Your task to perform on an android device: turn on location history Image 0: 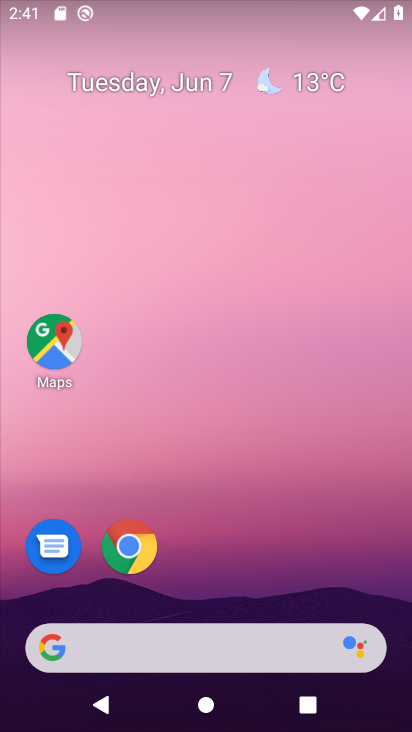
Step 0: drag from (316, 574) to (327, 137)
Your task to perform on an android device: turn on location history Image 1: 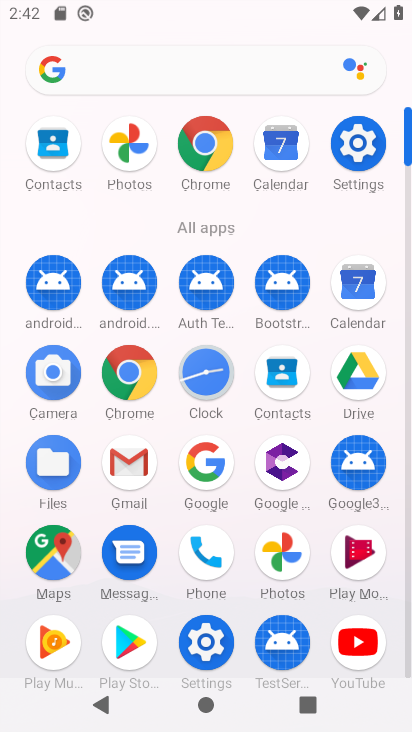
Step 1: click (354, 168)
Your task to perform on an android device: turn on location history Image 2: 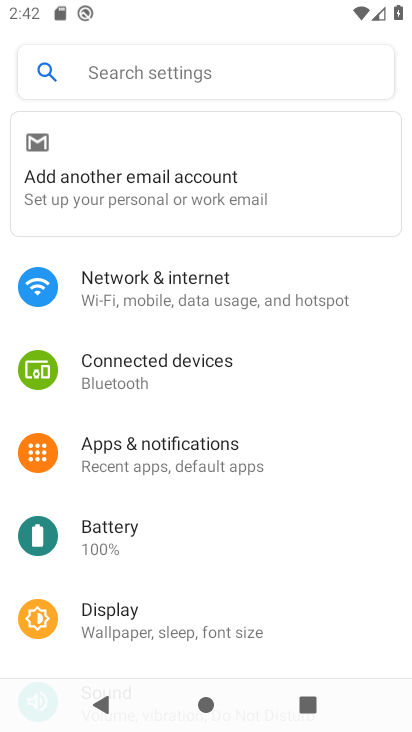
Step 2: drag from (316, 520) to (345, 312)
Your task to perform on an android device: turn on location history Image 3: 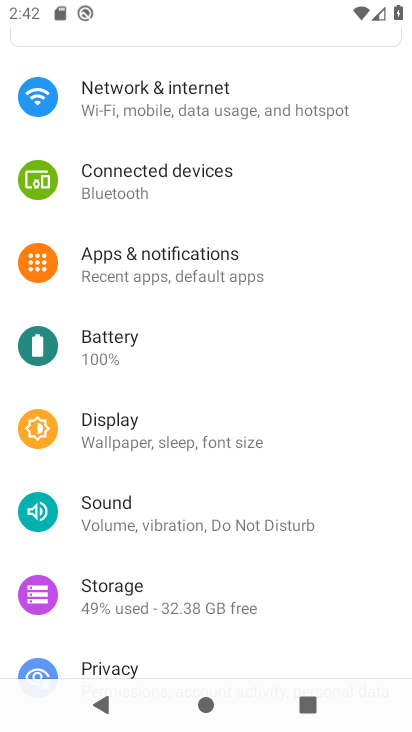
Step 3: drag from (319, 532) to (344, 352)
Your task to perform on an android device: turn on location history Image 4: 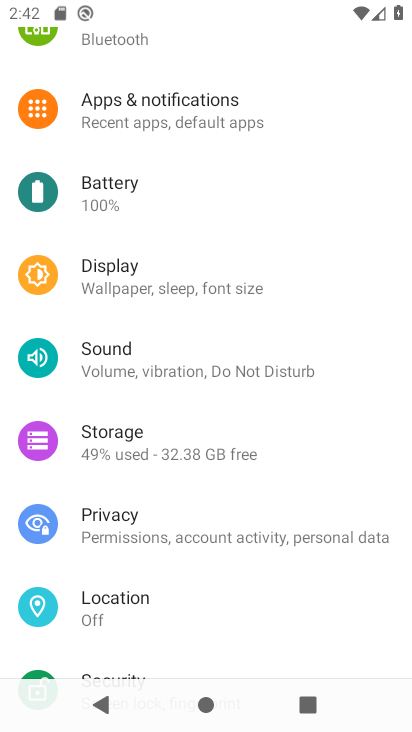
Step 4: drag from (319, 590) to (325, 357)
Your task to perform on an android device: turn on location history Image 5: 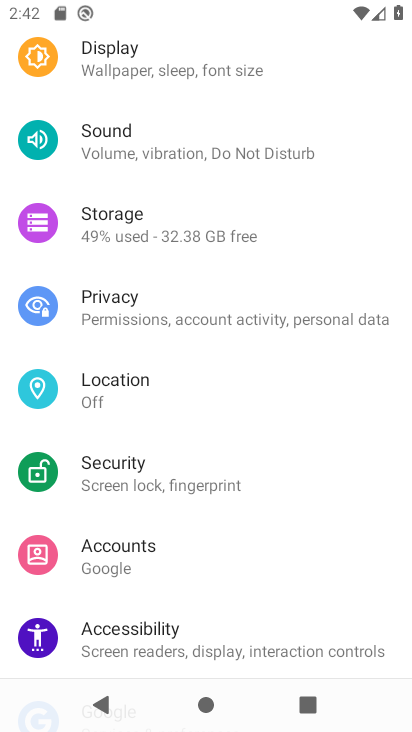
Step 5: drag from (293, 600) to (295, 380)
Your task to perform on an android device: turn on location history Image 6: 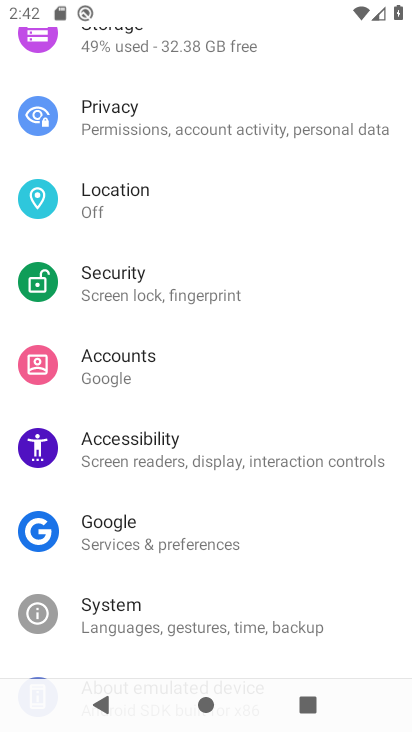
Step 6: drag from (277, 573) to (281, 425)
Your task to perform on an android device: turn on location history Image 7: 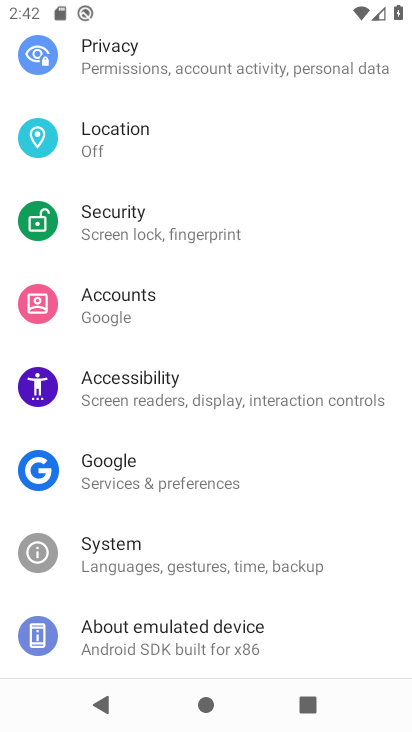
Step 7: drag from (284, 577) to (287, 385)
Your task to perform on an android device: turn on location history Image 8: 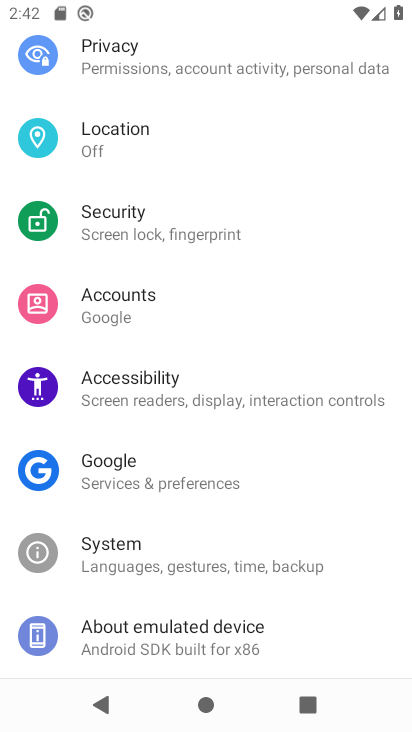
Step 8: drag from (240, 230) to (246, 381)
Your task to perform on an android device: turn on location history Image 9: 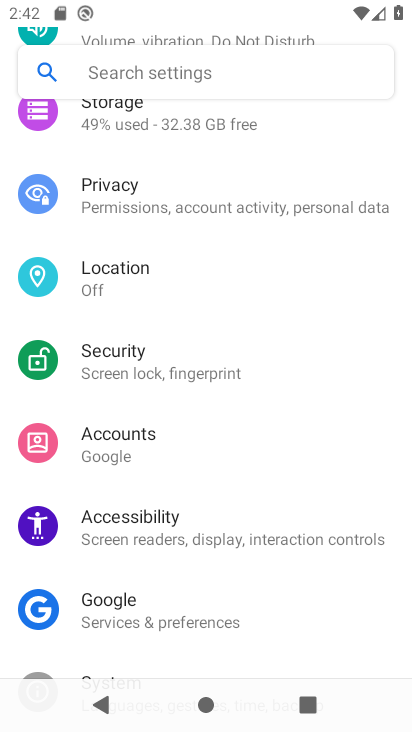
Step 9: click (106, 277)
Your task to perform on an android device: turn on location history Image 10: 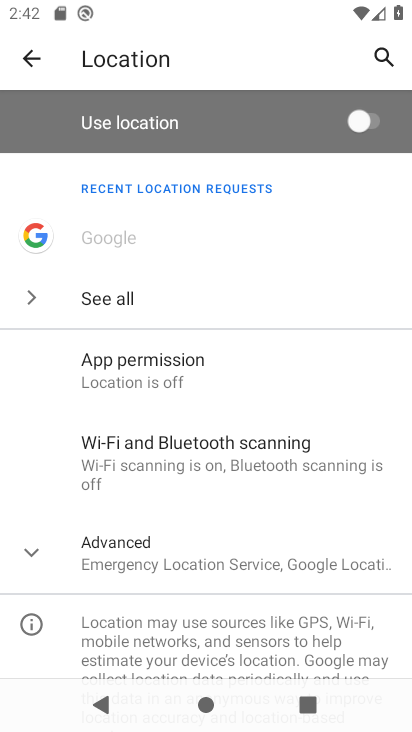
Step 10: drag from (230, 548) to (230, 397)
Your task to perform on an android device: turn on location history Image 11: 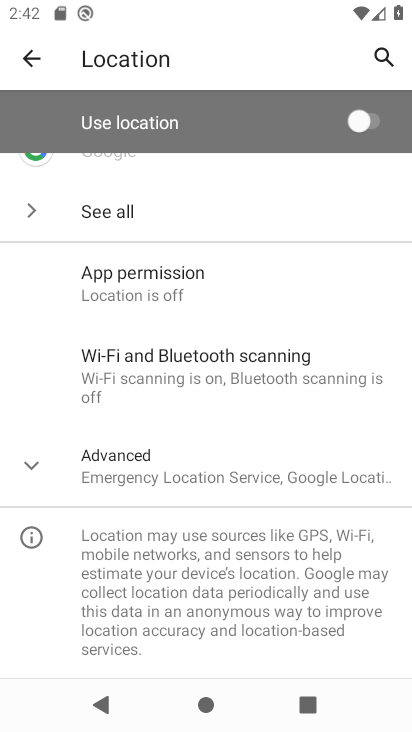
Step 11: click (229, 466)
Your task to perform on an android device: turn on location history Image 12: 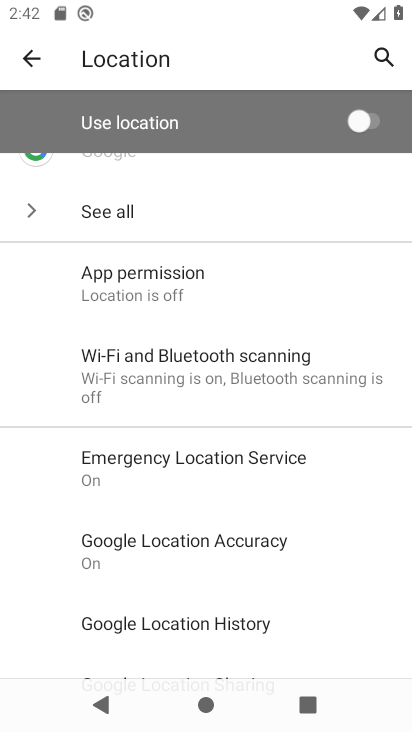
Step 12: drag from (187, 568) to (202, 441)
Your task to perform on an android device: turn on location history Image 13: 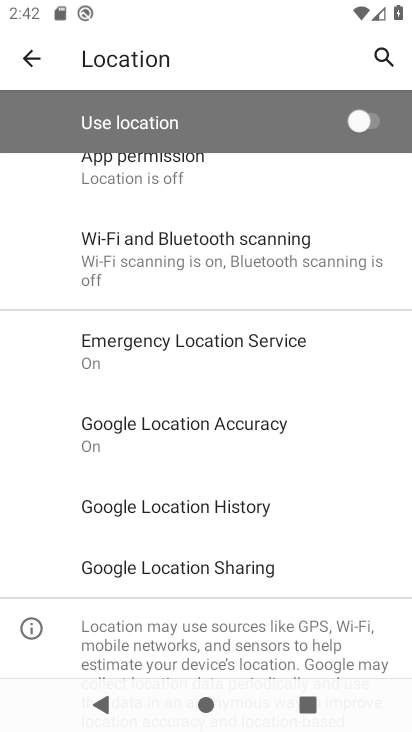
Step 13: click (166, 515)
Your task to perform on an android device: turn on location history Image 14: 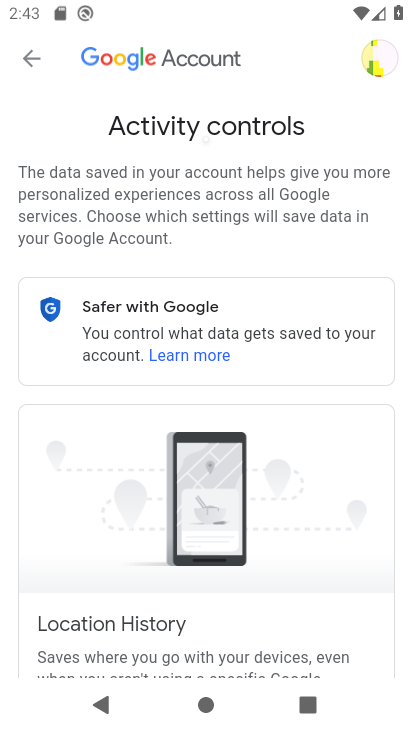
Step 14: drag from (292, 550) to (294, 428)
Your task to perform on an android device: turn on location history Image 15: 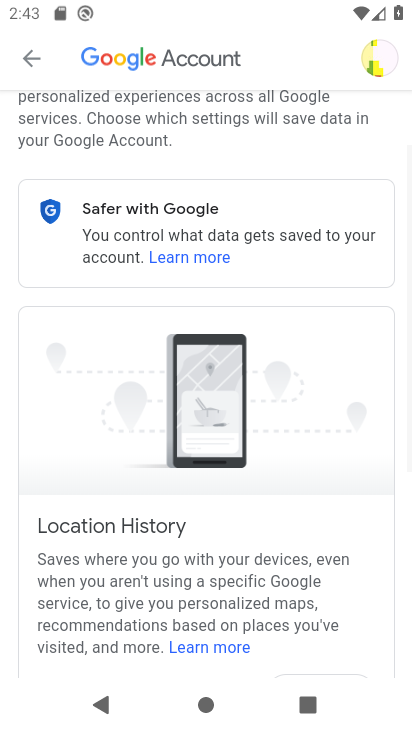
Step 15: drag from (274, 569) to (287, 461)
Your task to perform on an android device: turn on location history Image 16: 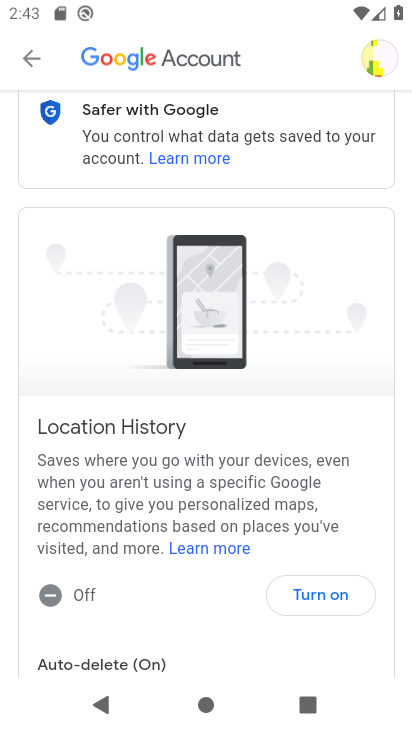
Step 16: click (299, 606)
Your task to perform on an android device: turn on location history Image 17: 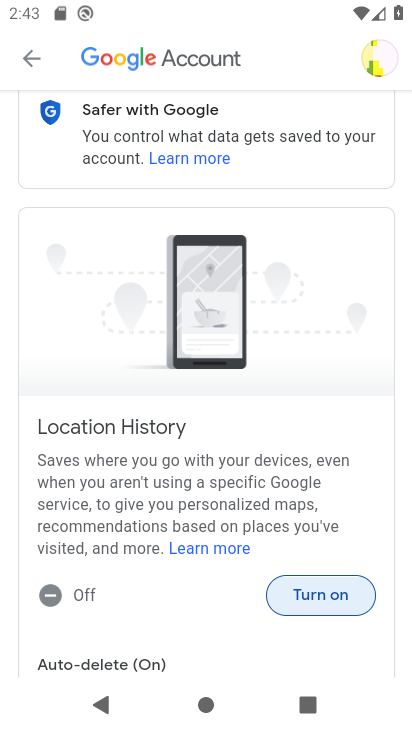
Step 17: click (347, 602)
Your task to perform on an android device: turn on location history Image 18: 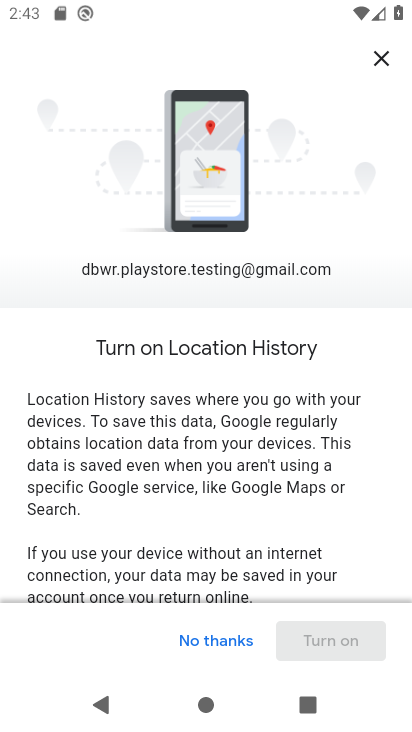
Step 18: drag from (328, 566) to (331, 319)
Your task to perform on an android device: turn on location history Image 19: 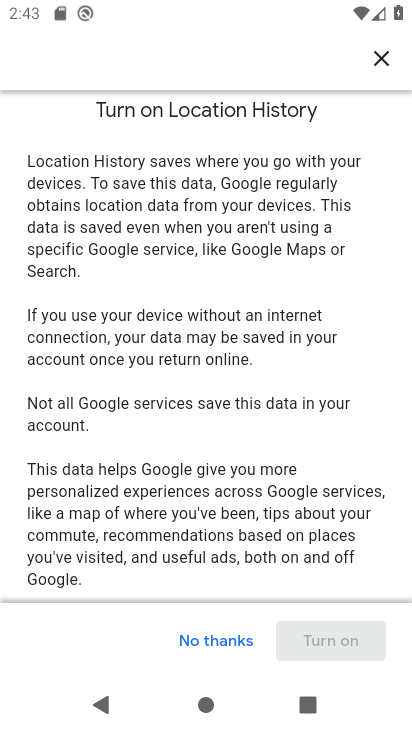
Step 19: drag from (302, 516) to (320, 340)
Your task to perform on an android device: turn on location history Image 20: 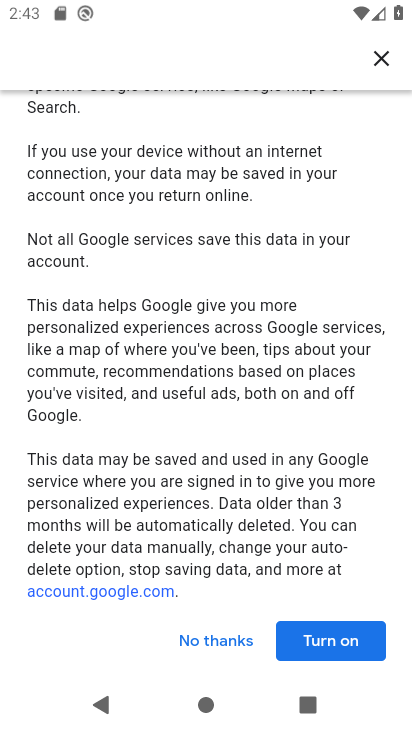
Step 20: click (335, 639)
Your task to perform on an android device: turn on location history Image 21: 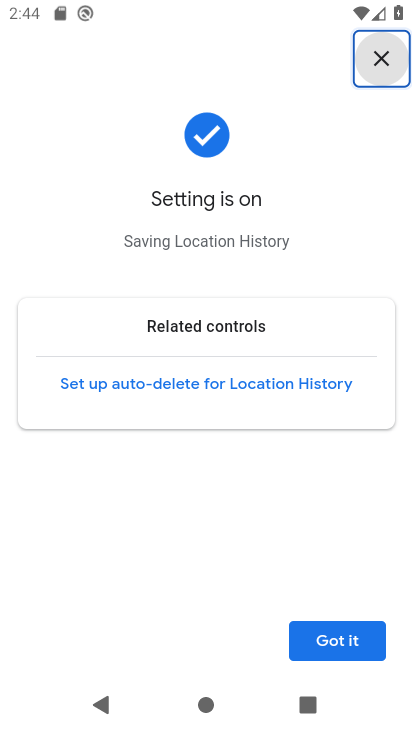
Step 21: task complete